Your task to perform on an android device: open a new tab in the chrome app Image 0: 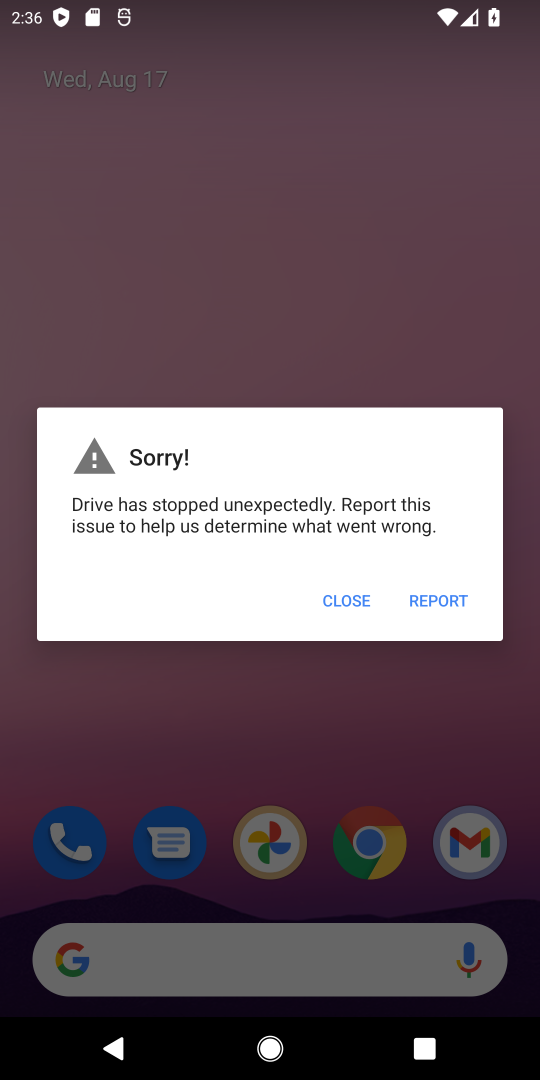
Step 0: click (363, 602)
Your task to perform on an android device: open a new tab in the chrome app Image 1: 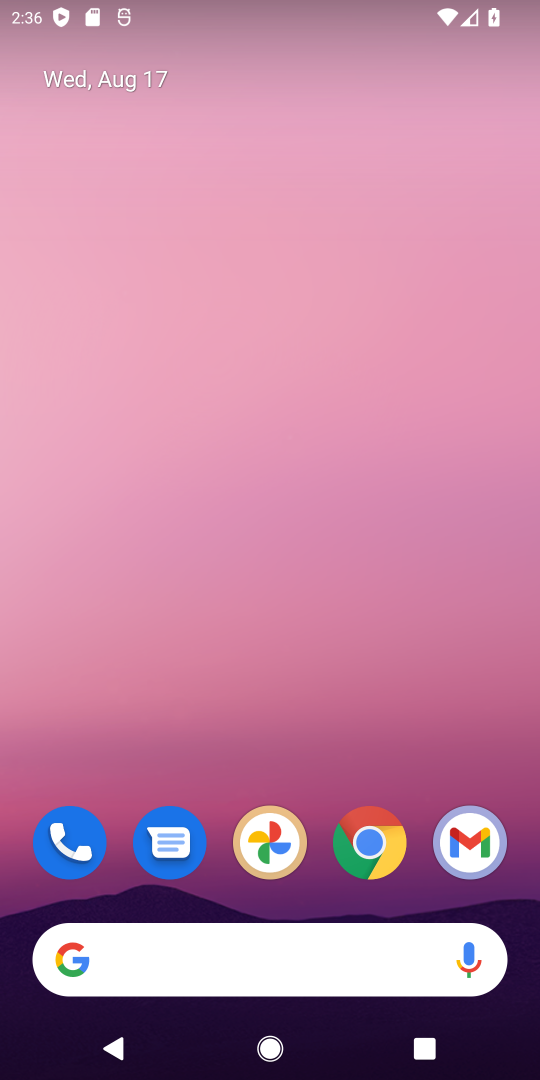
Step 1: drag from (521, 889) to (310, 63)
Your task to perform on an android device: open a new tab in the chrome app Image 2: 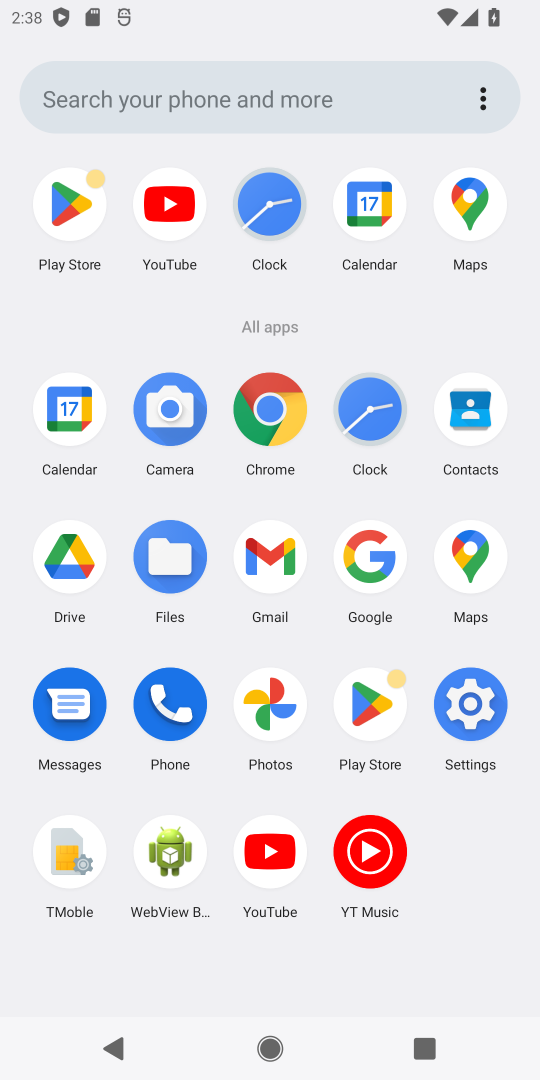
Step 2: click (255, 399)
Your task to perform on an android device: open a new tab in the chrome app Image 3: 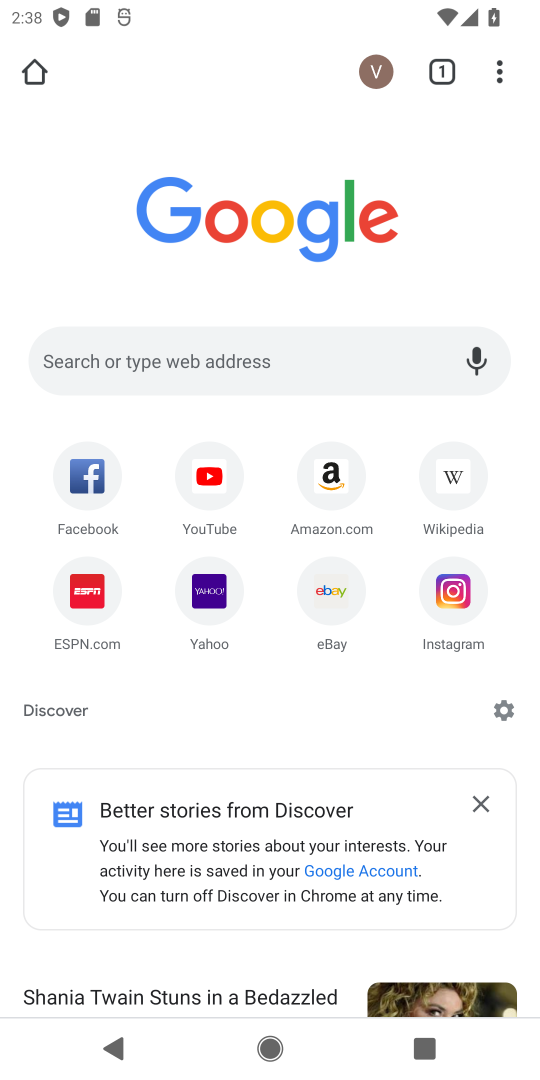
Step 3: click (499, 59)
Your task to perform on an android device: open a new tab in the chrome app Image 4: 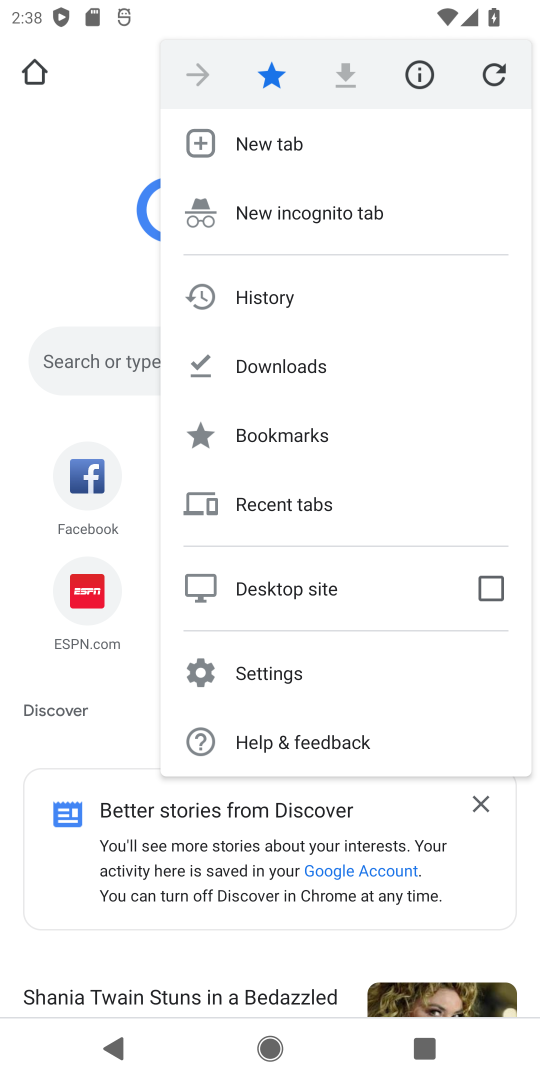
Step 4: click (278, 158)
Your task to perform on an android device: open a new tab in the chrome app Image 5: 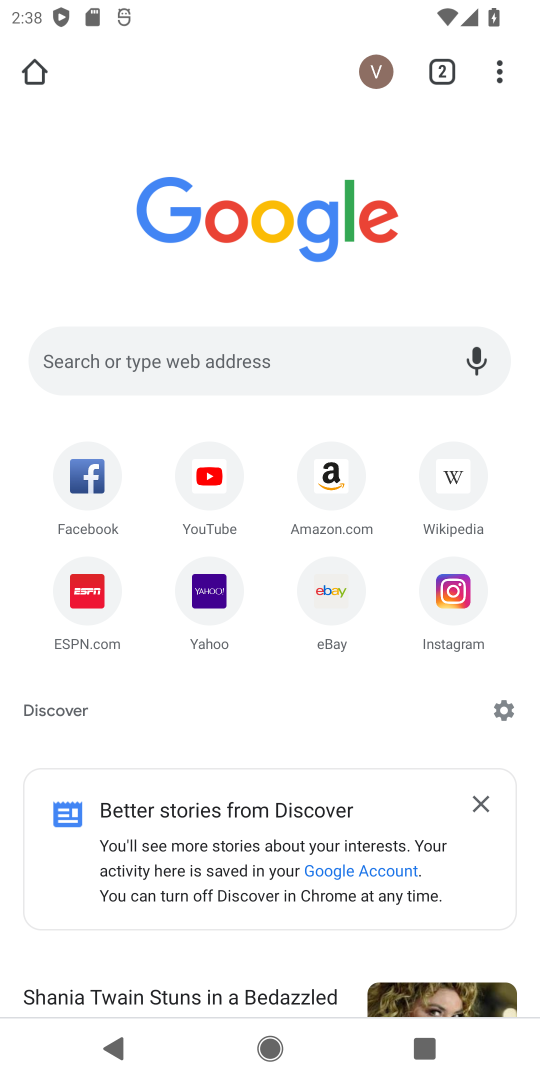
Step 5: task complete